Your task to perform on an android device: Open display settings Image 0: 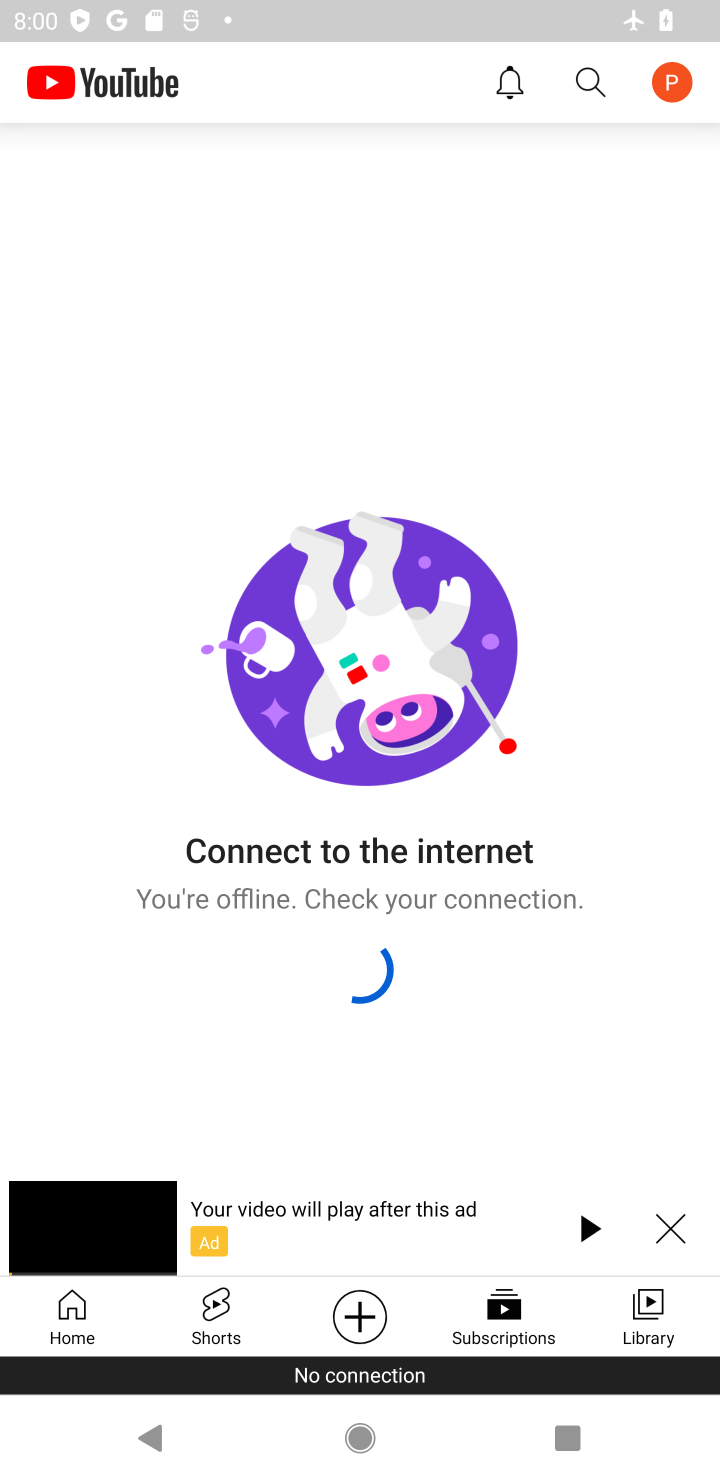
Step 0: press home button
Your task to perform on an android device: Open display settings Image 1: 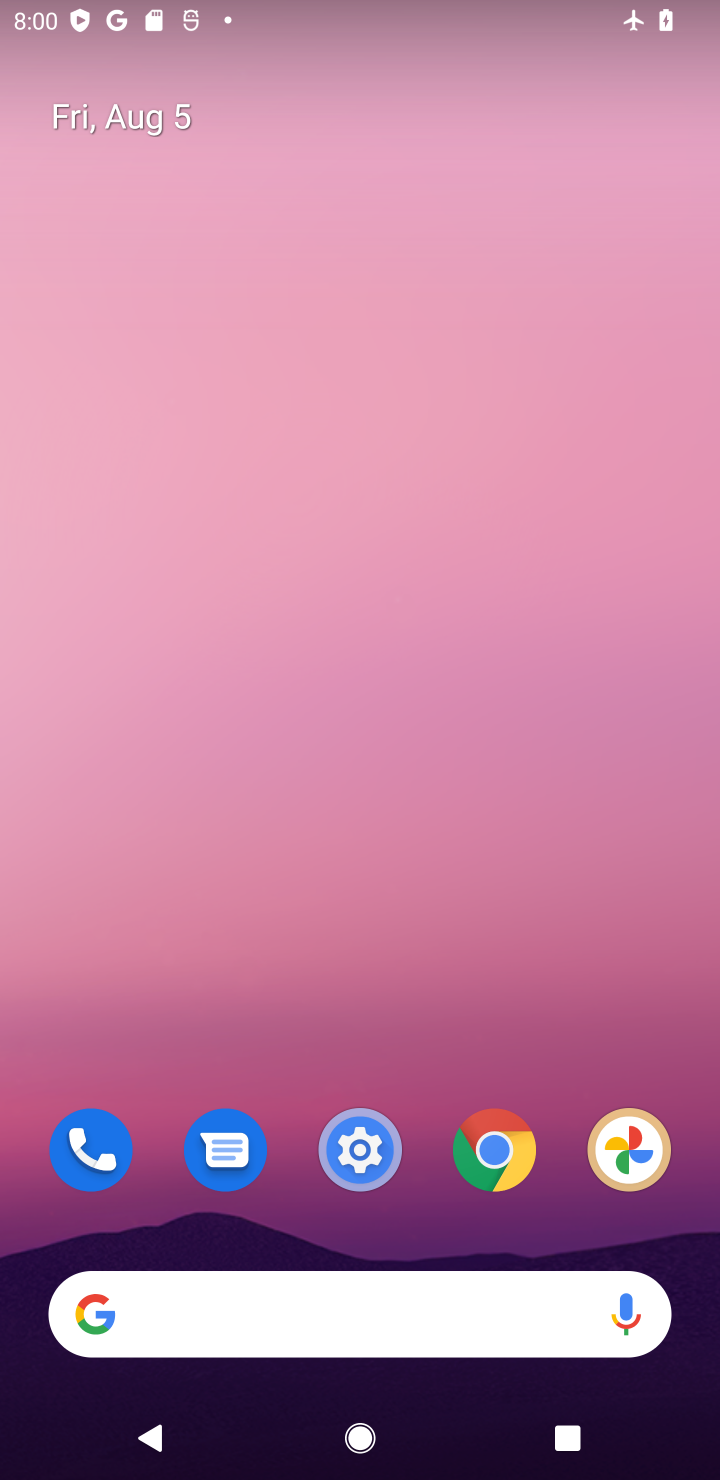
Step 1: drag from (426, 1050) to (503, 346)
Your task to perform on an android device: Open display settings Image 2: 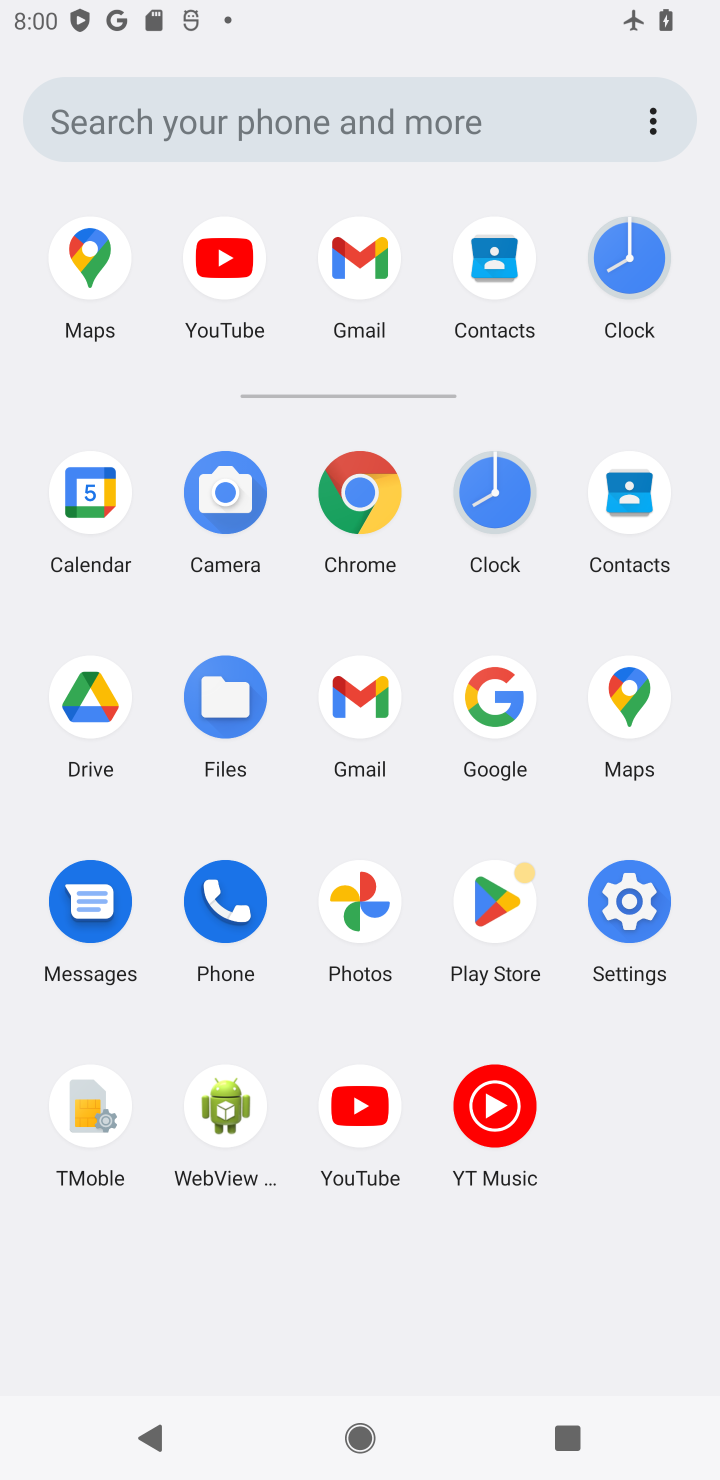
Step 2: click (629, 879)
Your task to perform on an android device: Open display settings Image 3: 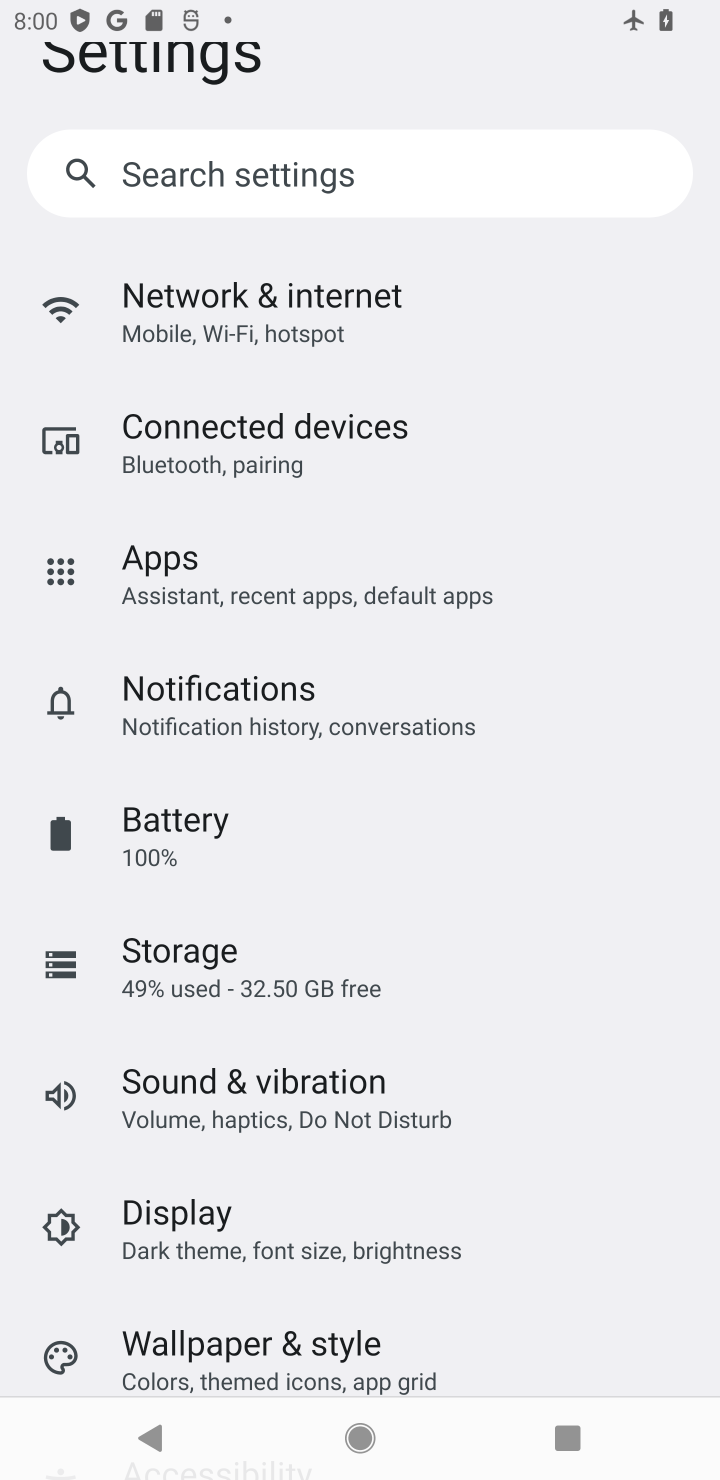
Step 3: drag from (594, 1039) to (612, 826)
Your task to perform on an android device: Open display settings Image 4: 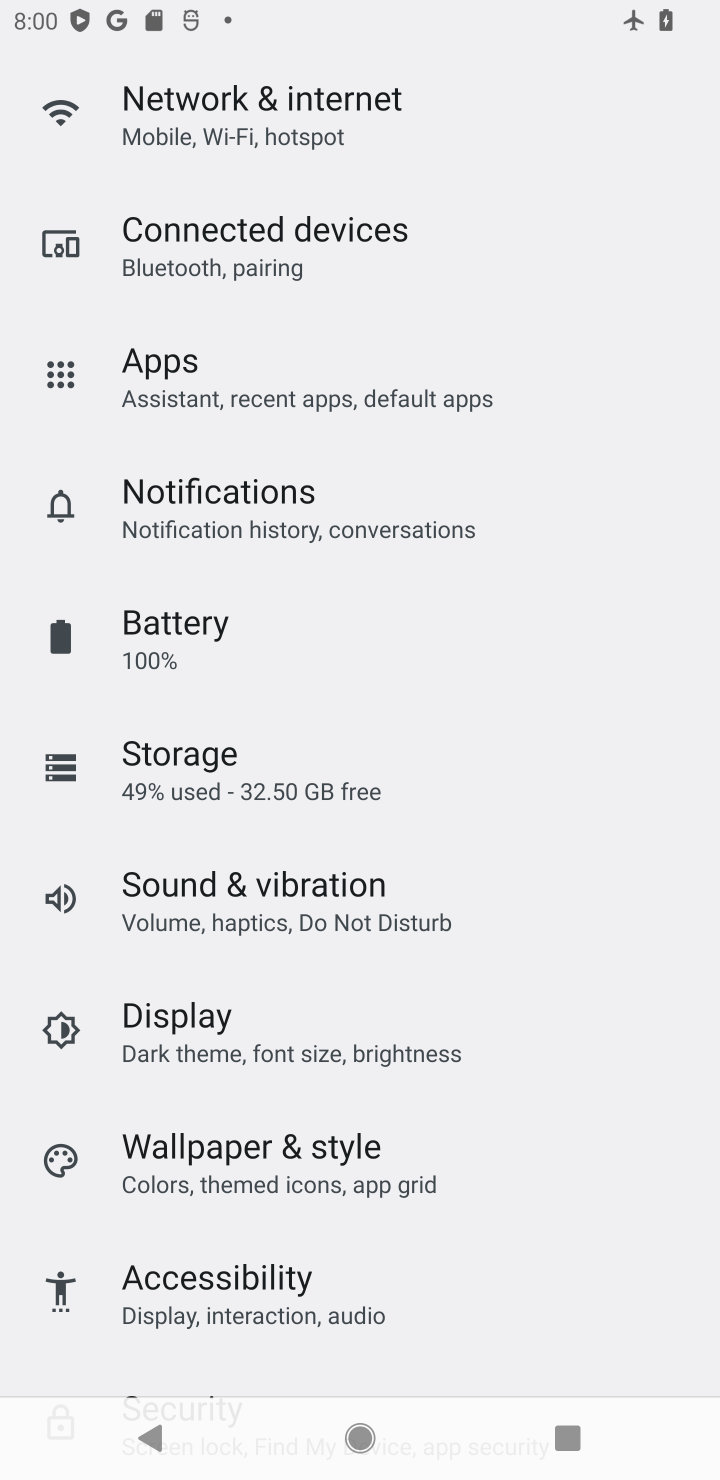
Step 4: drag from (589, 1092) to (577, 636)
Your task to perform on an android device: Open display settings Image 5: 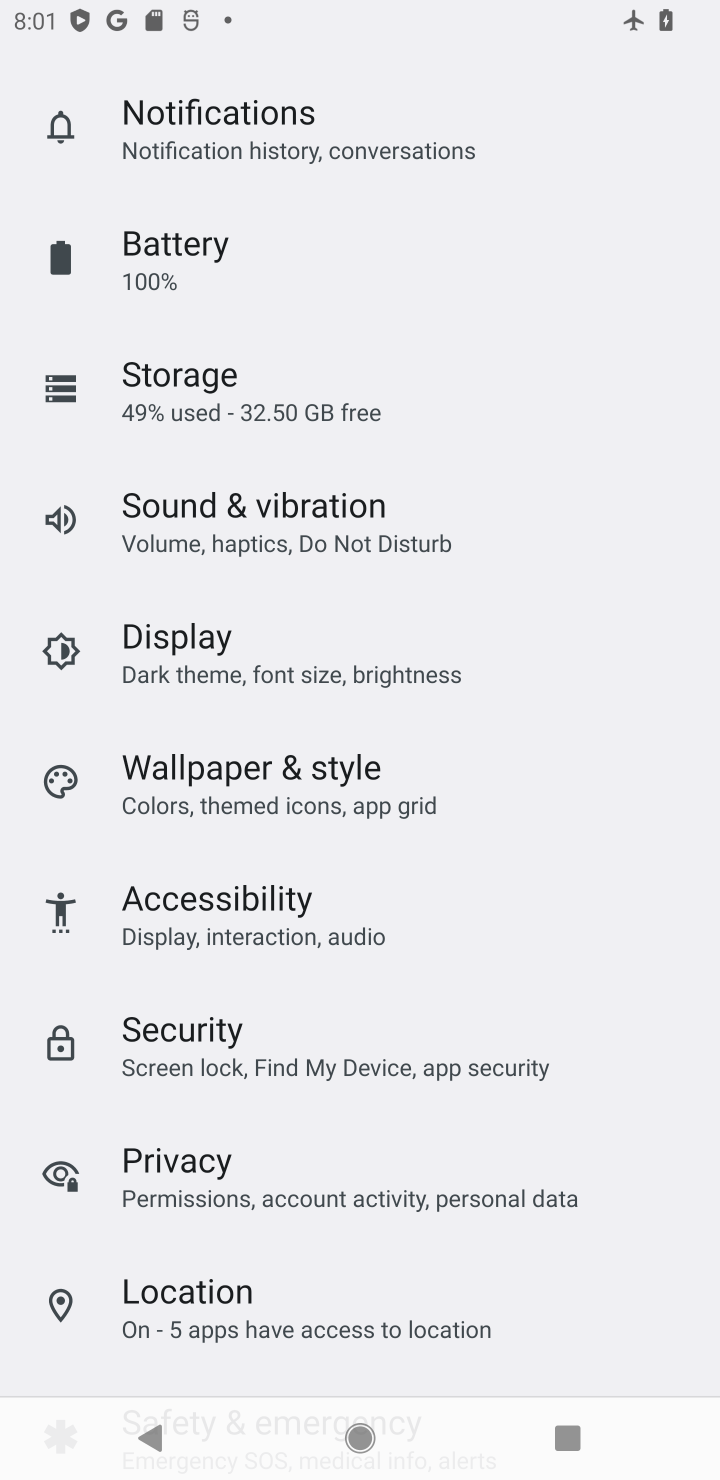
Step 5: drag from (585, 998) to (575, 633)
Your task to perform on an android device: Open display settings Image 6: 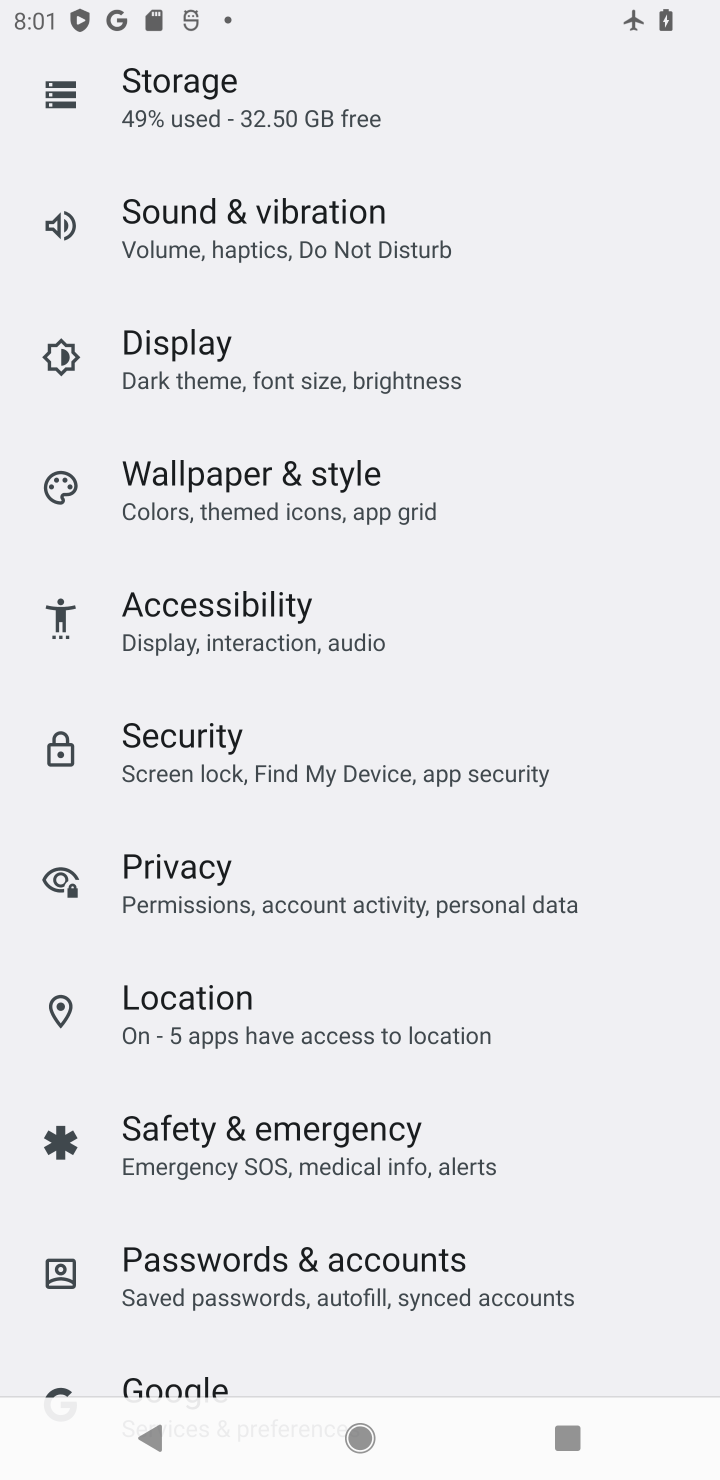
Step 6: click (432, 359)
Your task to perform on an android device: Open display settings Image 7: 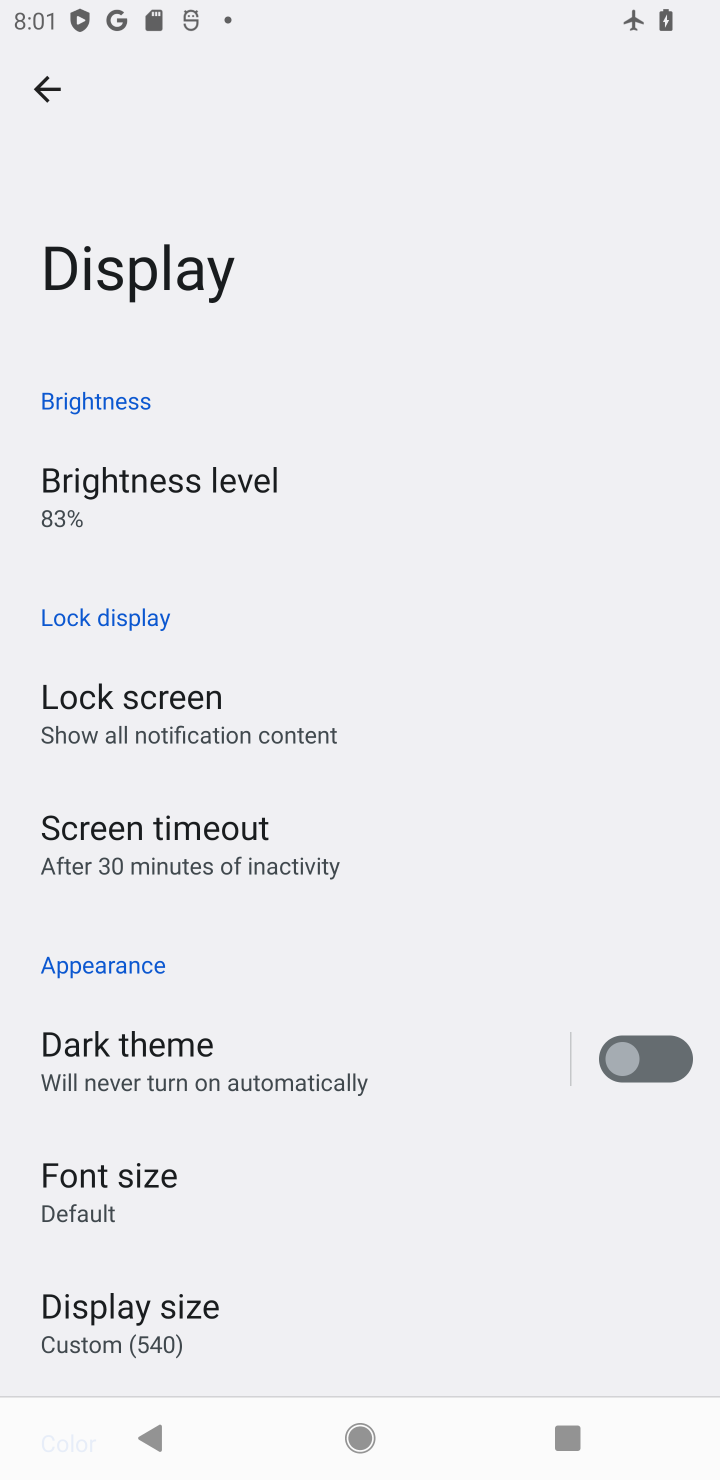
Step 7: task complete